Your task to perform on an android device: Open eBay Image 0: 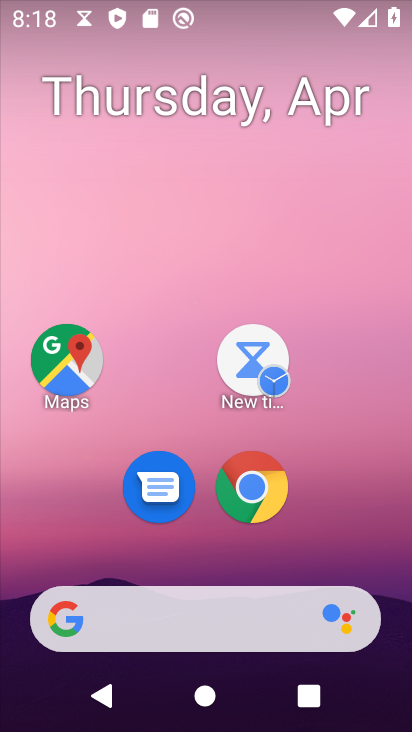
Step 0: click (221, 481)
Your task to perform on an android device: Open eBay Image 1: 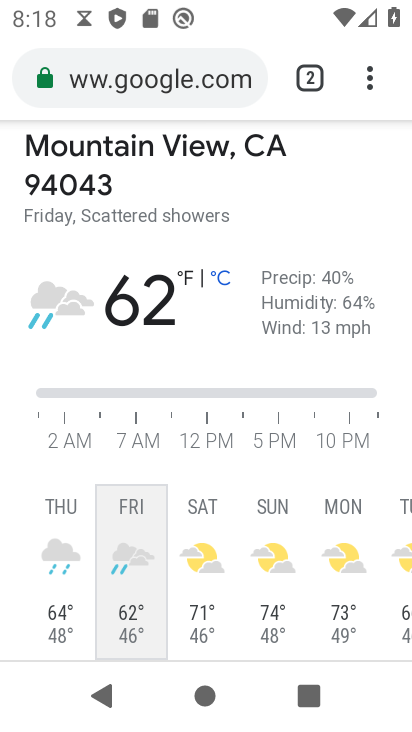
Step 1: click (313, 85)
Your task to perform on an android device: Open eBay Image 2: 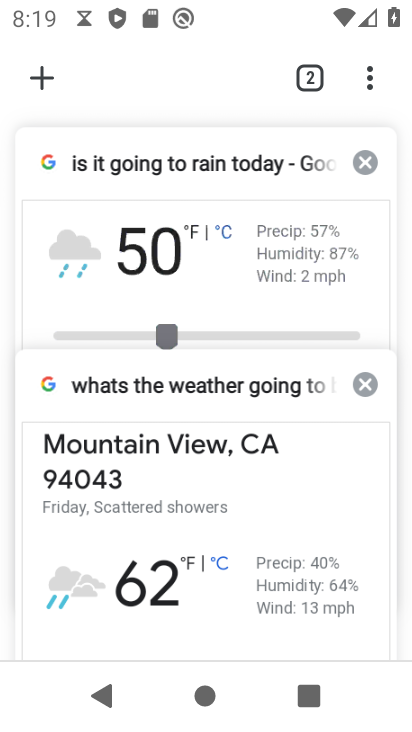
Step 2: click (43, 72)
Your task to perform on an android device: Open eBay Image 3: 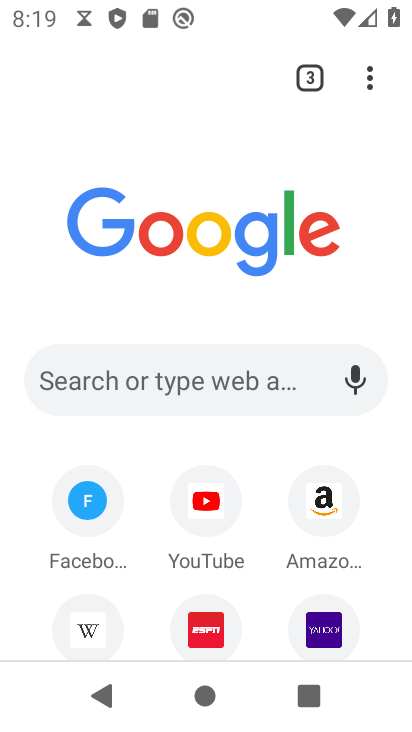
Step 3: click (142, 373)
Your task to perform on an android device: Open eBay Image 4: 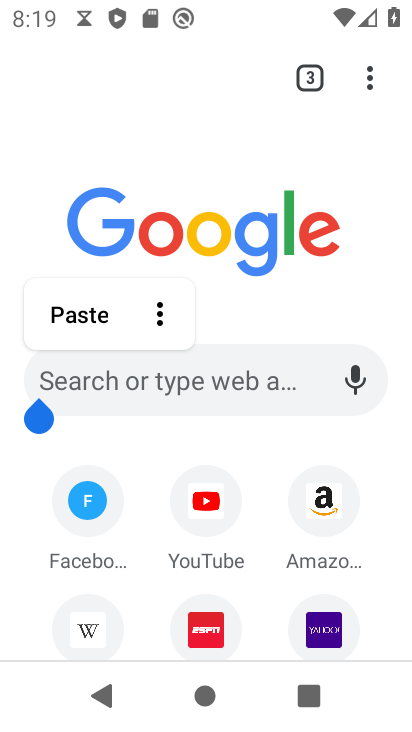
Step 4: click (199, 378)
Your task to perform on an android device: Open eBay Image 5: 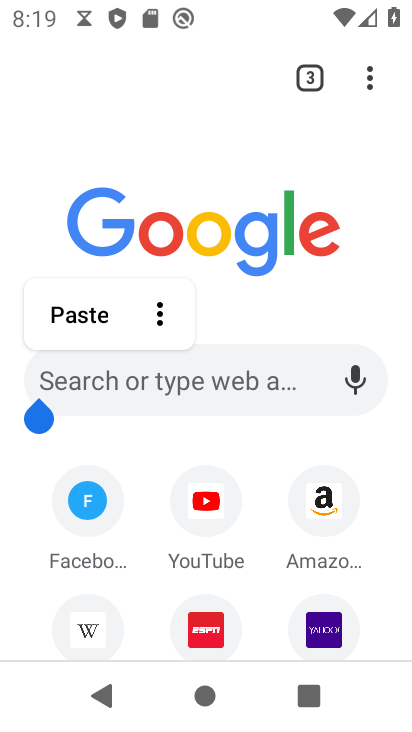
Step 5: click (96, 378)
Your task to perform on an android device: Open eBay Image 6: 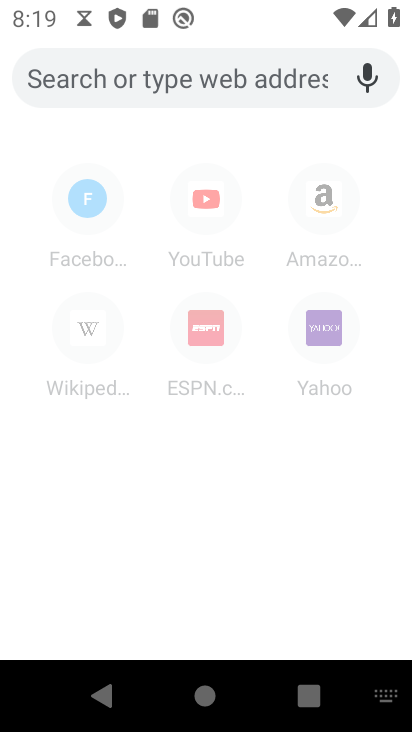
Step 6: type "ebay"
Your task to perform on an android device: Open eBay Image 7: 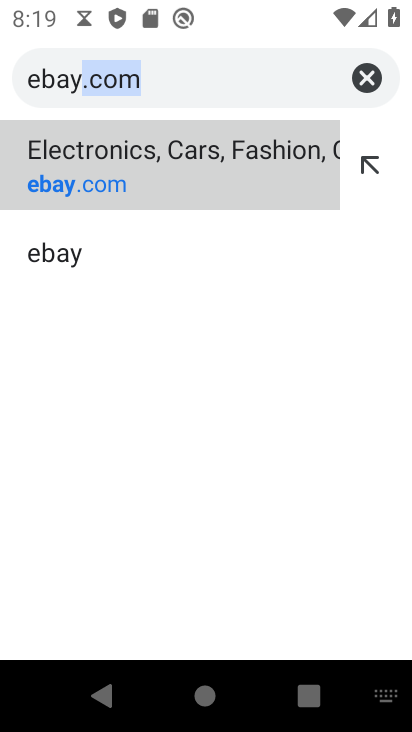
Step 7: click (140, 185)
Your task to perform on an android device: Open eBay Image 8: 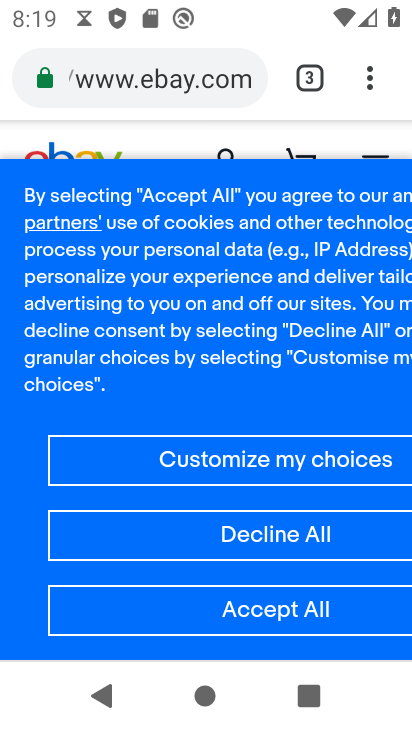
Step 8: task complete